Your task to perform on an android device: change the clock display to analog Image 0: 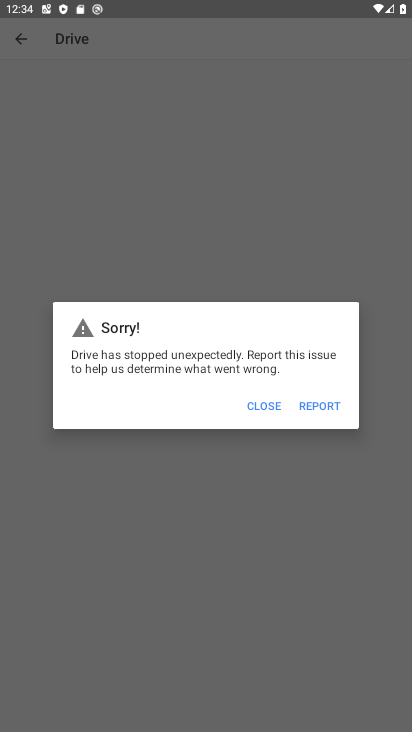
Step 0: press back button
Your task to perform on an android device: change the clock display to analog Image 1: 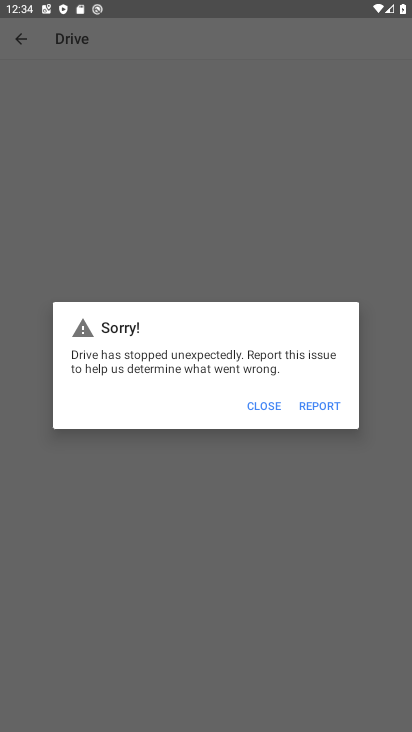
Step 1: press back button
Your task to perform on an android device: change the clock display to analog Image 2: 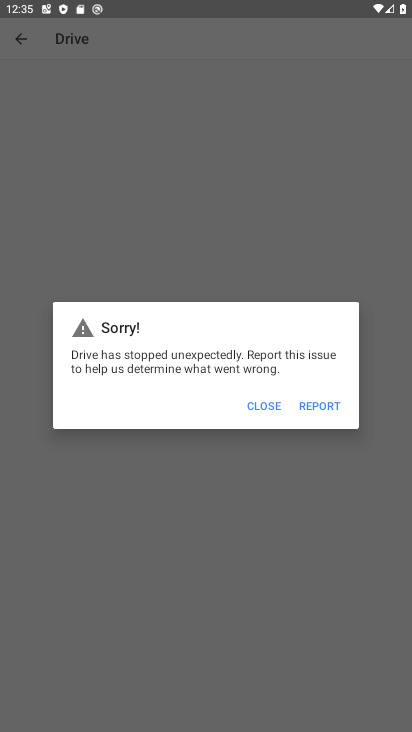
Step 2: press back button
Your task to perform on an android device: change the clock display to analog Image 3: 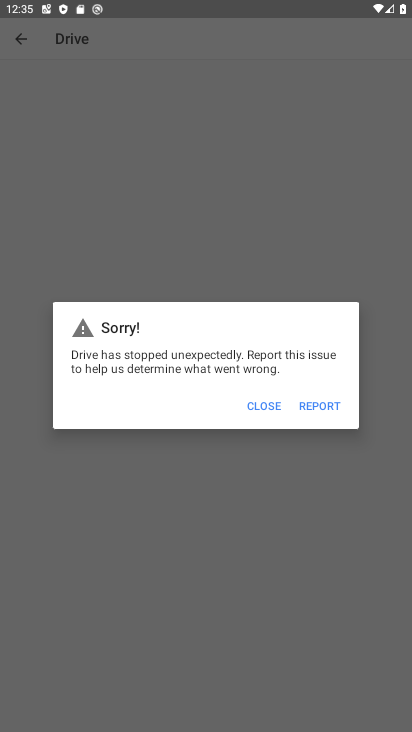
Step 3: press back button
Your task to perform on an android device: change the clock display to analog Image 4: 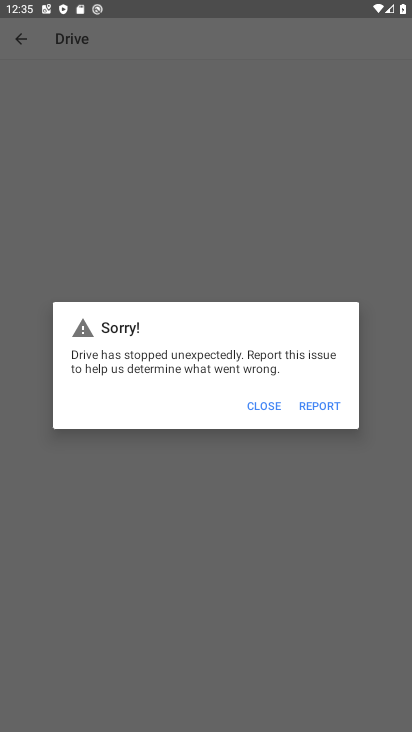
Step 4: press home button
Your task to perform on an android device: change the clock display to analog Image 5: 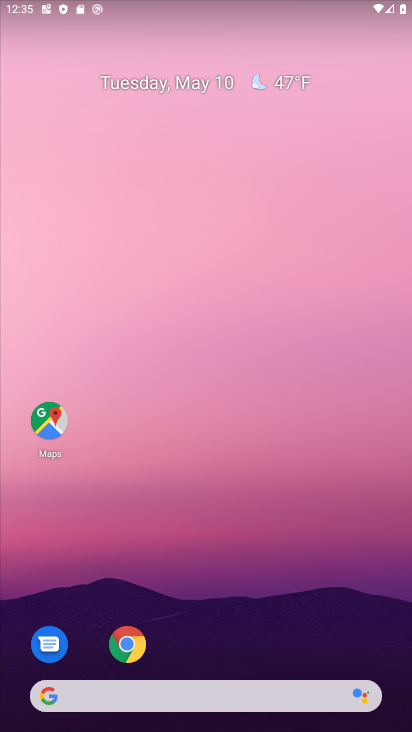
Step 5: drag from (175, 638) to (309, 174)
Your task to perform on an android device: change the clock display to analog Image 6: 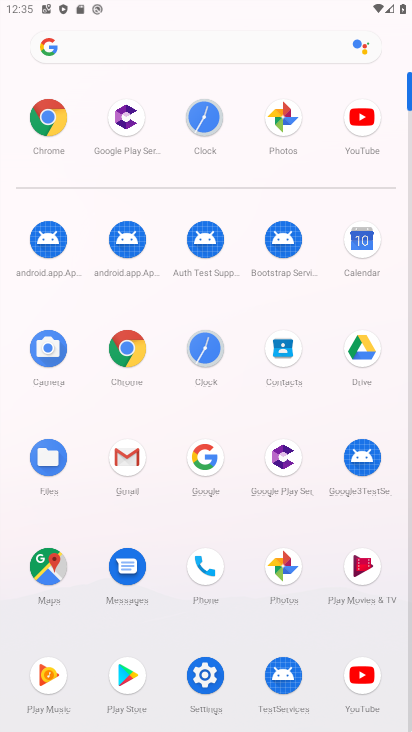
Step 6: click (203, 348)
Your task to perform on an android device: change the clock display to analog Image 7: 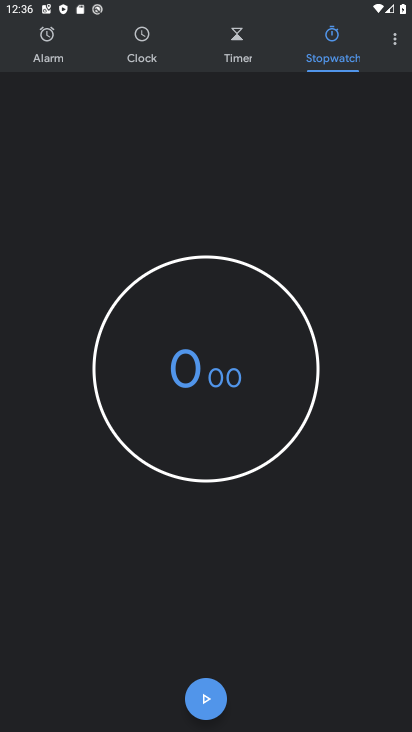
Step 7: click (389, 41)
Your task to perform on an android device: change the clock display to analog Image 8: 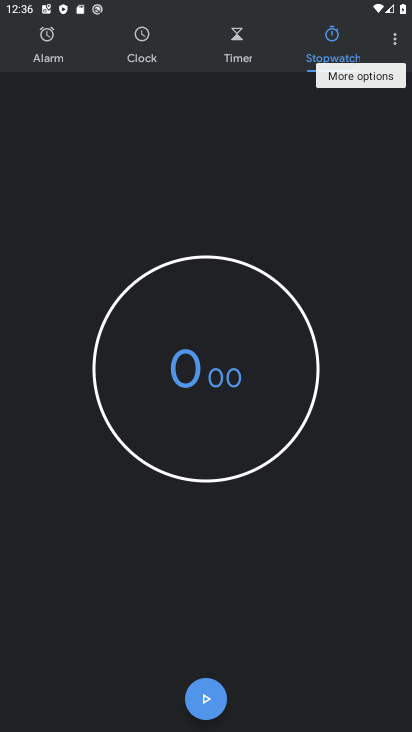
Step 8: click (389, 42)
Your task to perform on an android device: change the clock display to analog Image 9: 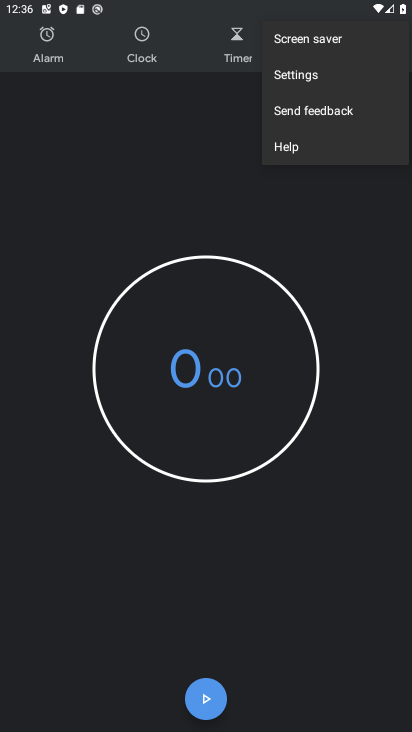
Step 9: click (278, 68)
Your task to perform on an android device: change the clock display to analog Image 10: 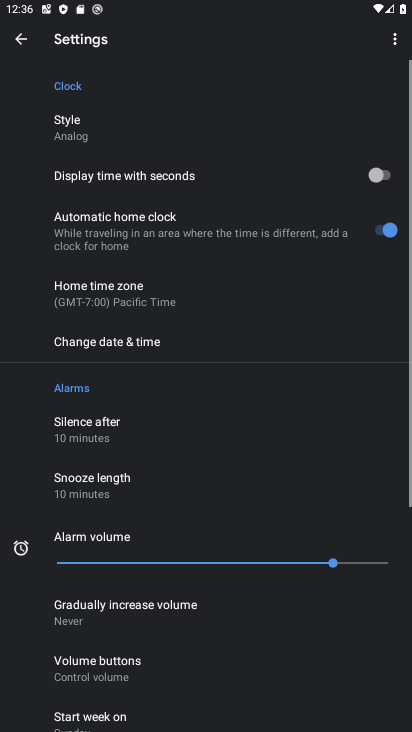
Step 10: click (103, 127)
Your task to perform on an android device: change the clock display to analog Image 11: 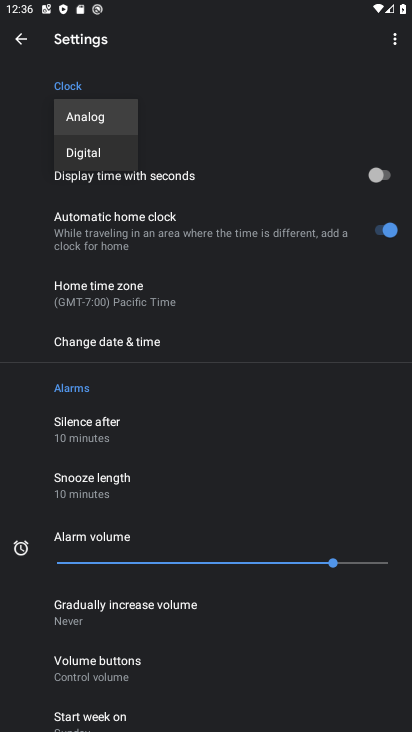
Step 11: click (107, 117)
Your task to perform on an android device: change the clock display to analog Image 12: 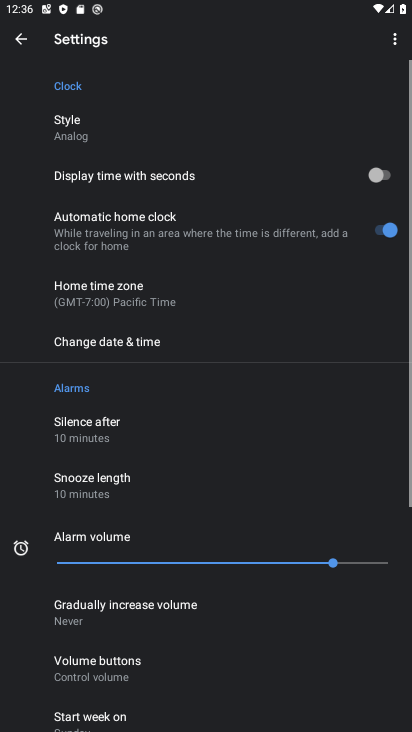
Step 12: task complete